Your task to perform on an android device: set the timer Image 0: 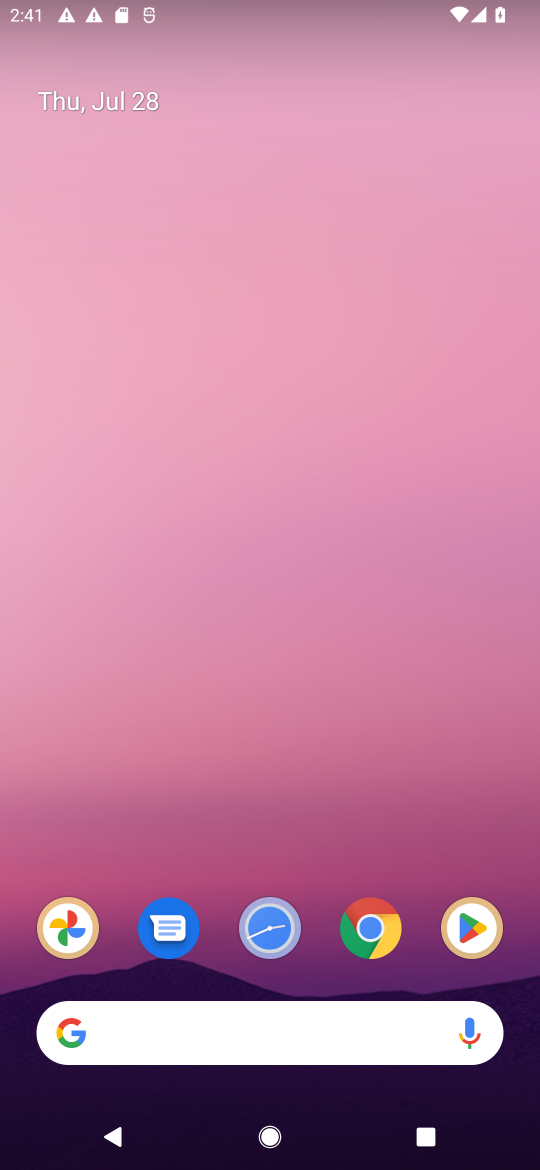
Step 0: drag from (222, 810) to (308, 116)
Your task to perform on an android device: set the timer Image 1: 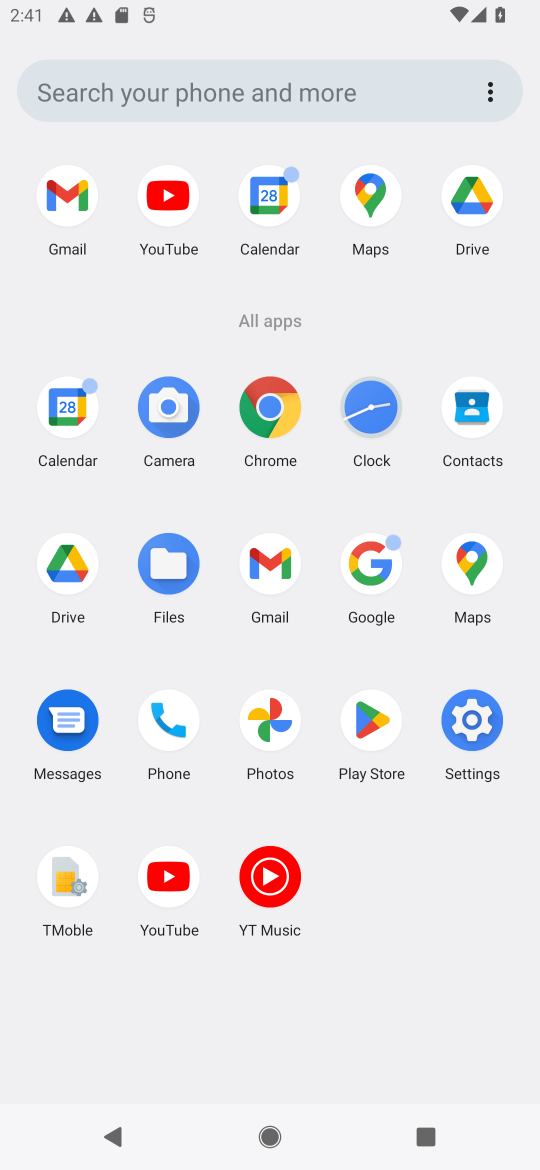
Step 1: click (376, 418)
Your task to perform on an android device: set the timer Image 2: 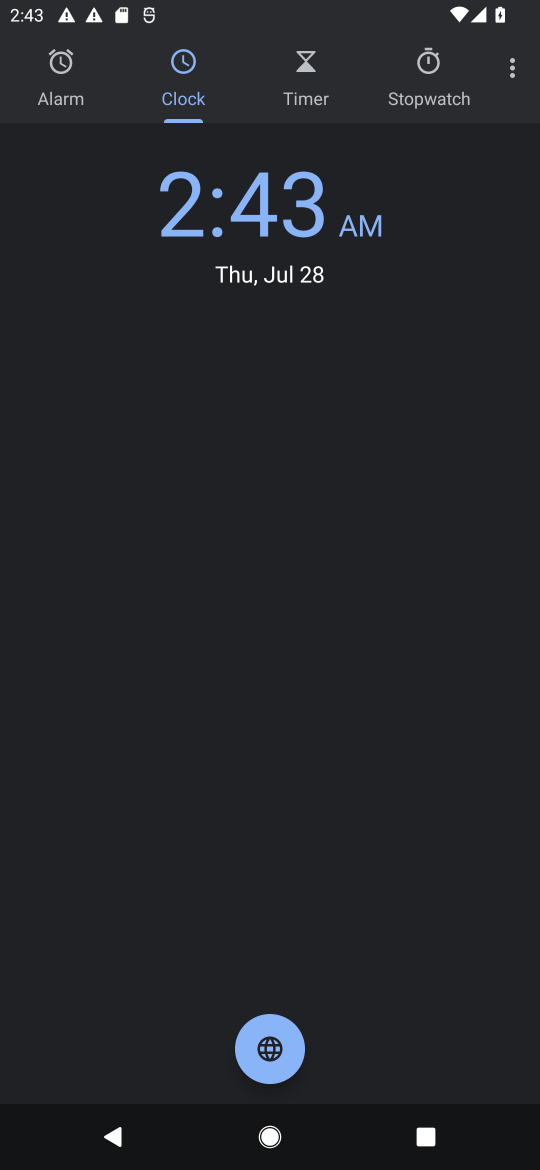
Step 2: click (333, 87)
Your task to perform on an android device: set the timer Image 3: 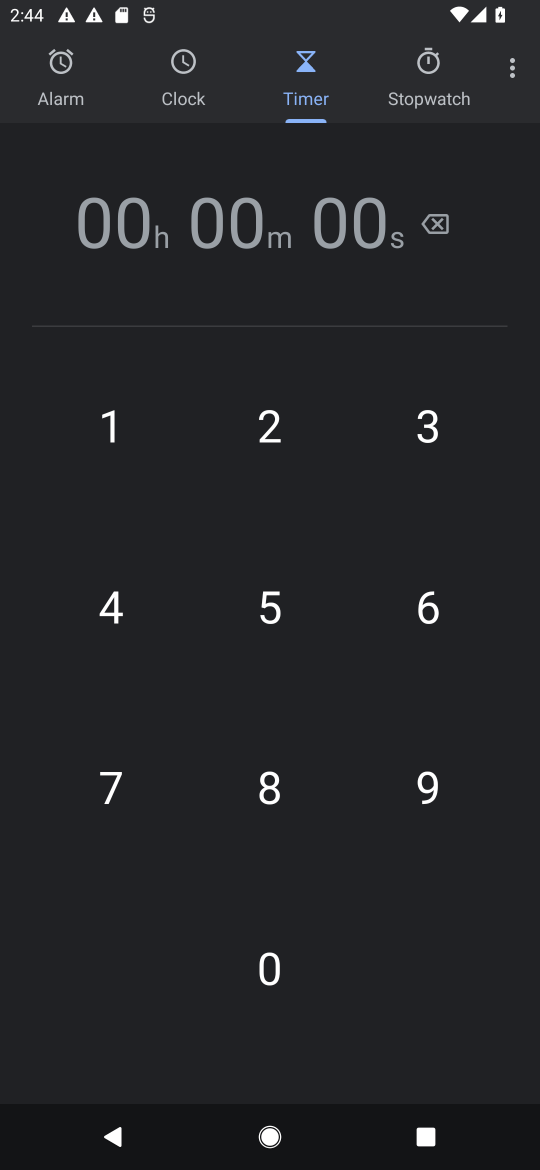
Step 3: click (253, 642)
Your task to perform on an android device: set the timer Image 4: 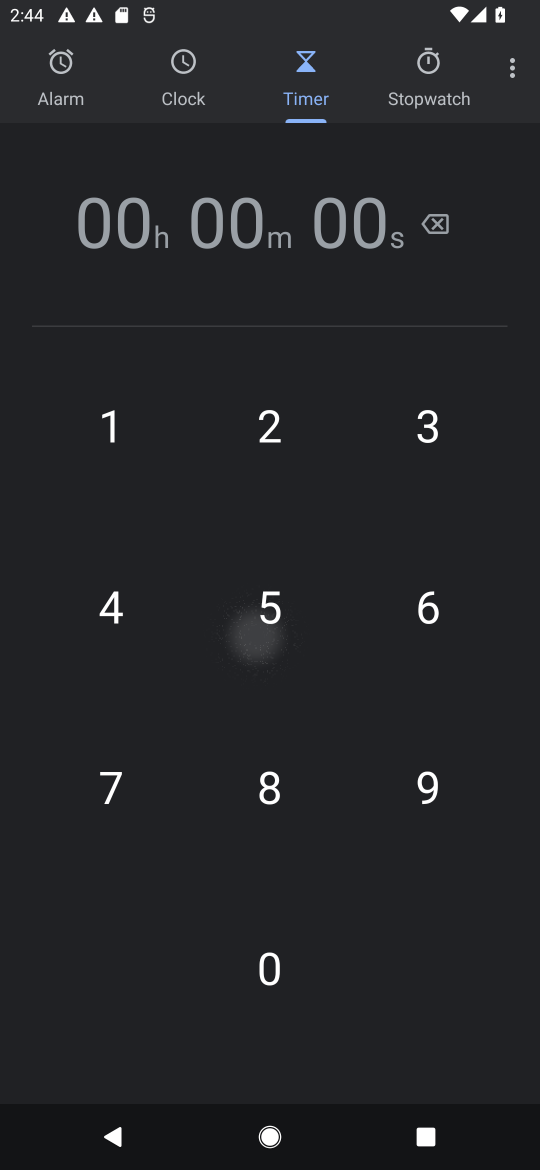
Step 4: click (253, 642)
Your task to perform on an android device: set the timer Image 5: 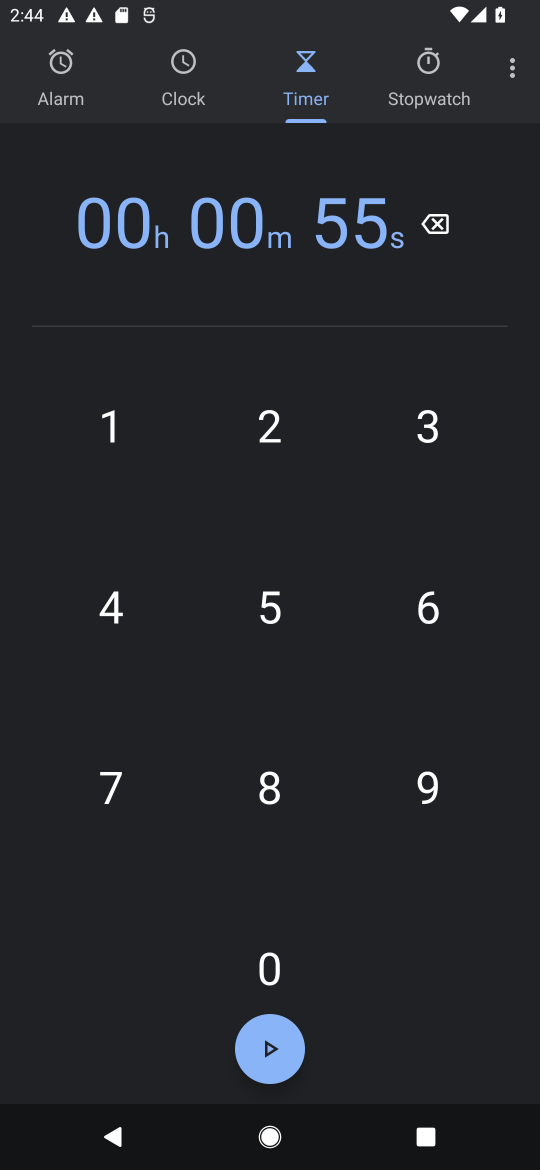
Step 5: click (253, 642)
Your task to perform on an android device: set the timer Image 6: 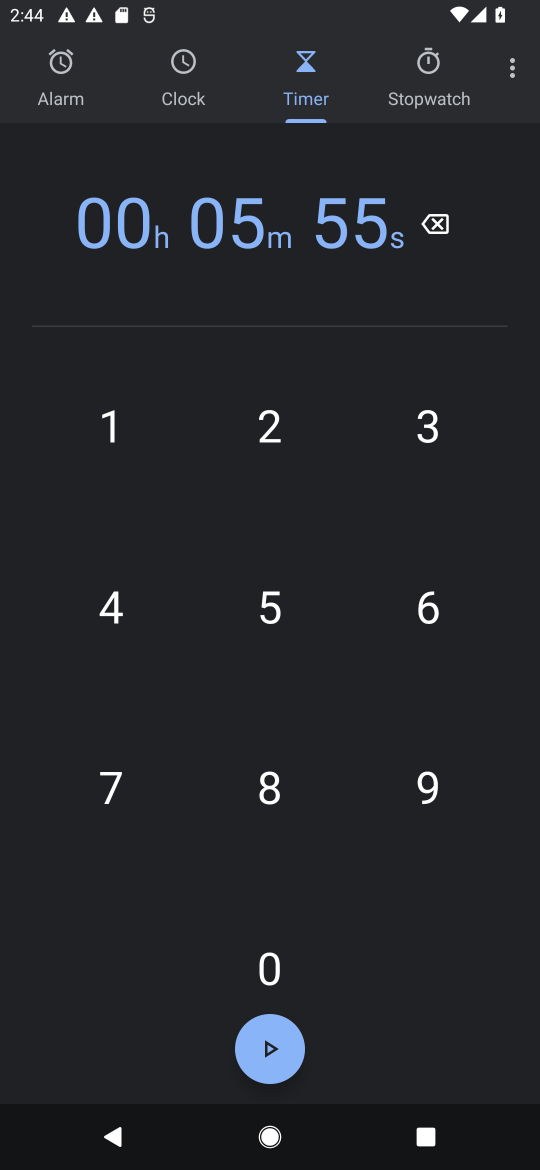
Step 6: click (253, 642)
Your task to perform on an android device: set the timer Image 7: 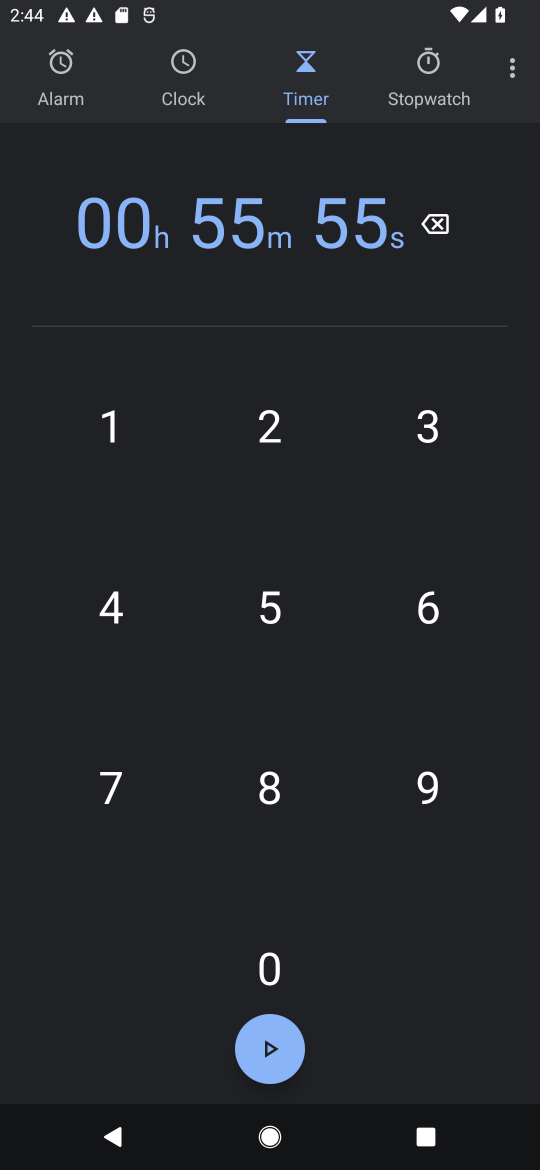
Step 7: click (274, 1043)
Your task to perform on an android device: set the timer Image 8: 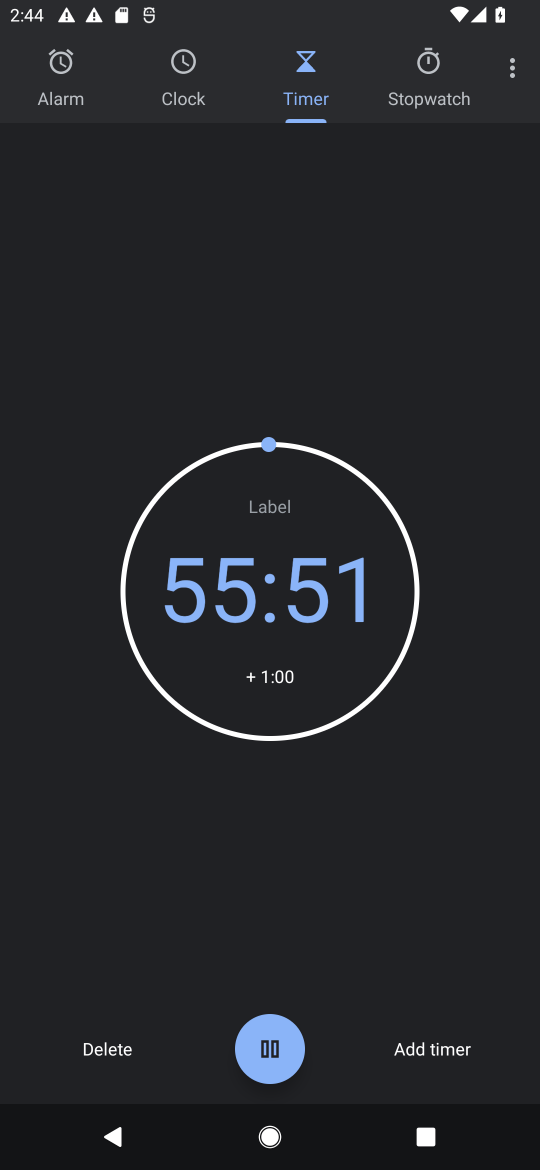
Step 8: task complete